Your task to perform on an android device: toggle priority inbox in the gmail app Image 0: 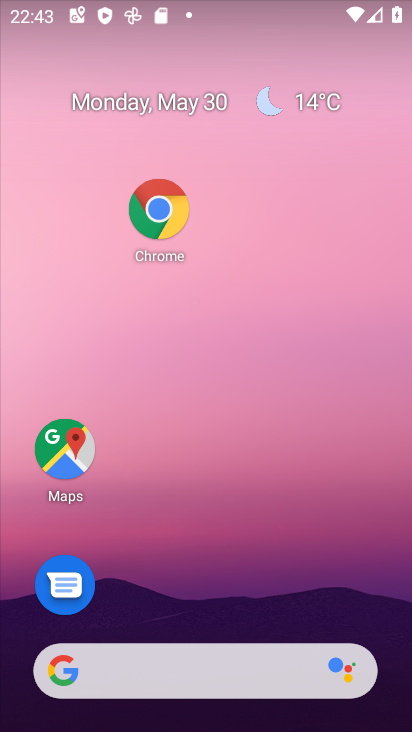
Step 0: drag from (190, 509) to (209, 173)
Your task to perform on an android device: toggle priority inbox in the gmail app Image 1: 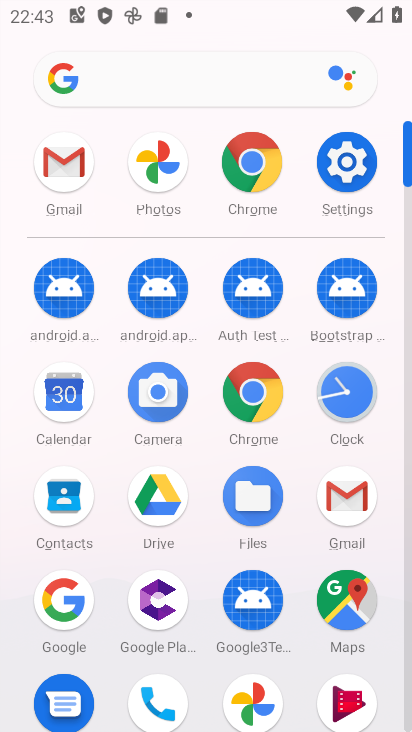
Step 1: click (344, 498)
Your task to perform on an android device: toggle priority inbox in the gmail app Image 2: 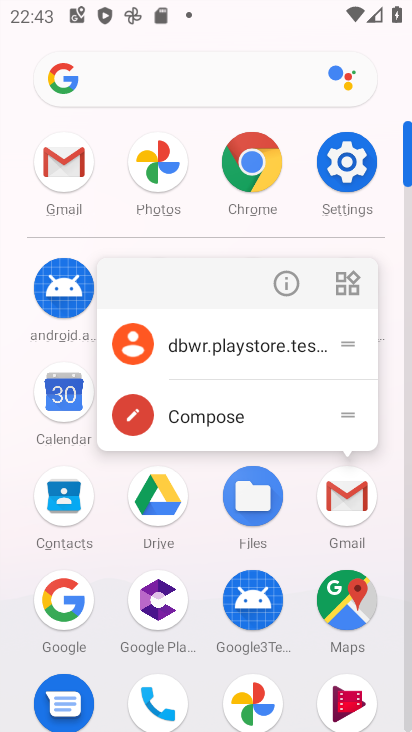
Step 2: click (287, 289)
Your task to perform on an android device: toggle priority inbox in the gmail app Image 3: 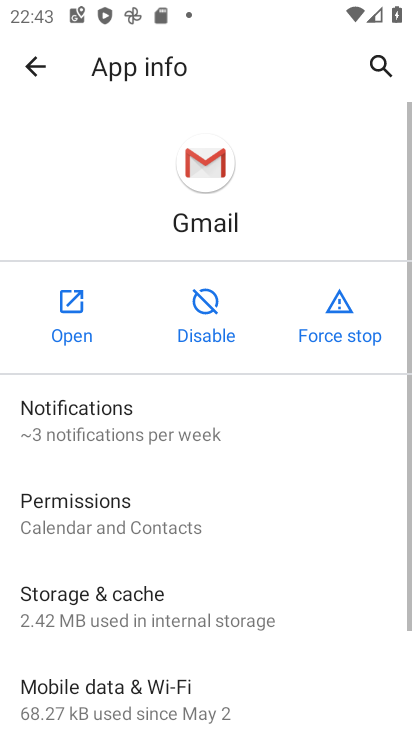
Step 3: click (67, 311)
Your task to perform on an android device: toggle priority inbox in the gmail app Image 4: 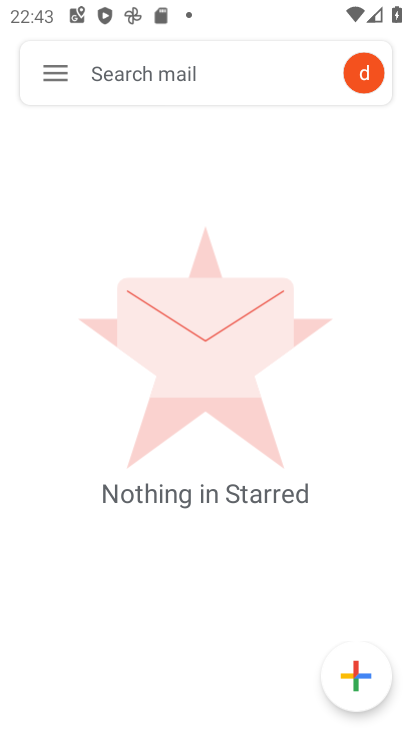
Step 4: click (62, 85)
Your task to perform on an android device: toggle priority inbox in the gmail app Image 5: 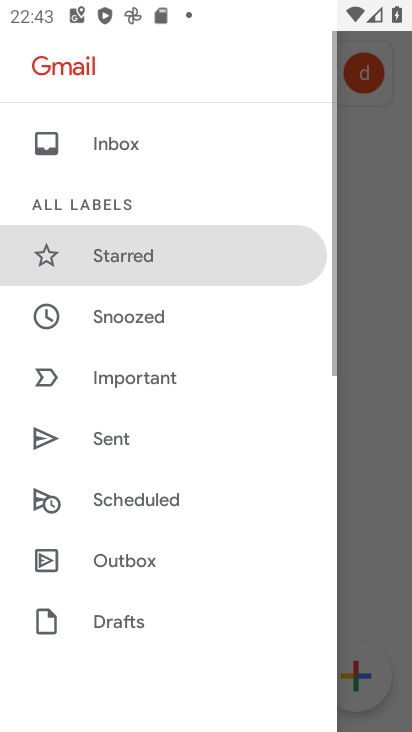
Step 5: drag from (161, 594) to (81, 19)
Your task to perform on an android device: toggle priority inbox in the gmail app Image 6: 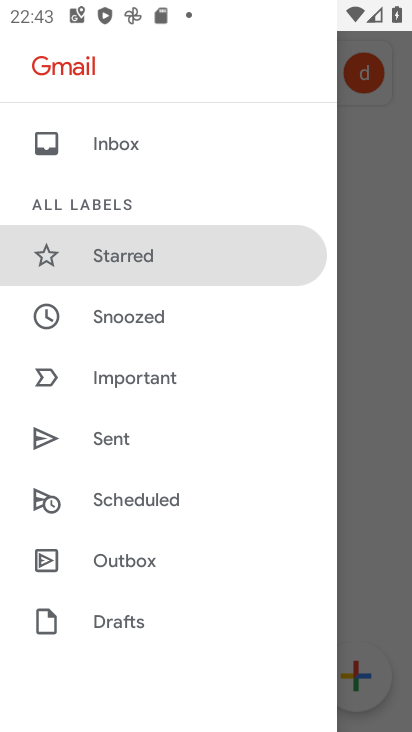
Step 6: drag from (125, 560) to (138, 31)
Your task to perform on an android device: toggle priority inbox in the gmail app Image 7: 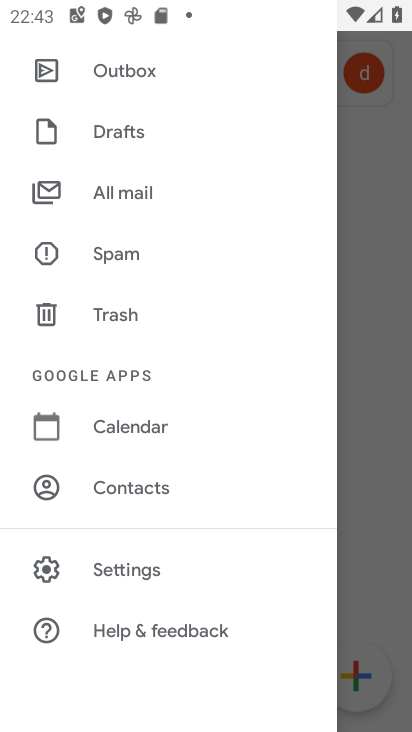
Step 7: click (133, 563)
Your task to perform on an android device: toggle priority inbox in the gmail app Image 8: 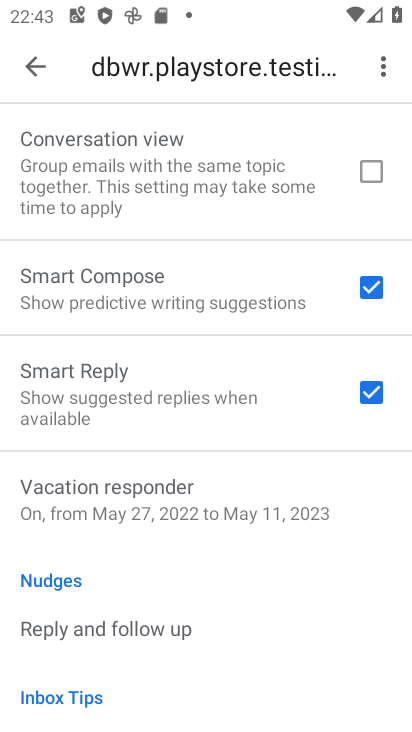
Step 8: drag from (201, 233) to (219, 729)
Your task to perform on an android device: toggle priority inbox in the gmail app Image 9: 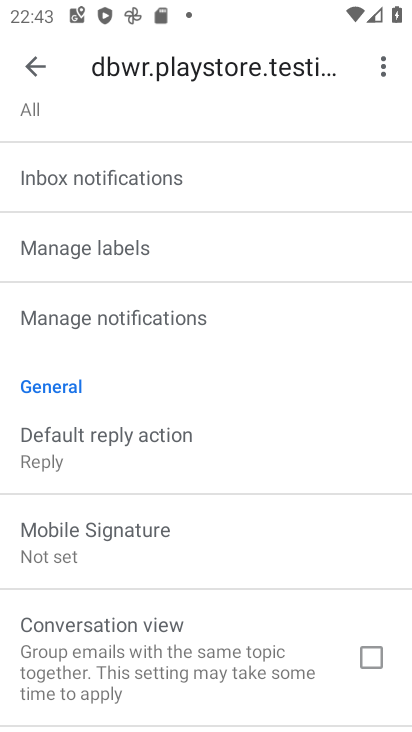
Step 9: drag from (123, 260) to (210, 725)
Your task to perform on an android device: toggle priority inbox in the gmail app Image 10: 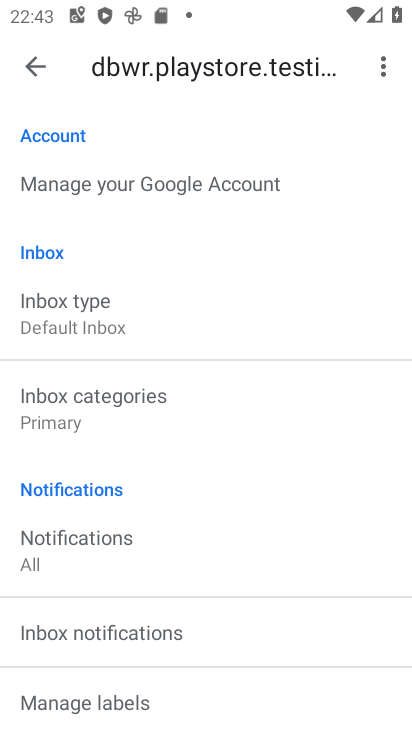
Step 10: click (91, 317)
Your task to perform on an android device: toggle priority inbox in the gmail app Image 11: 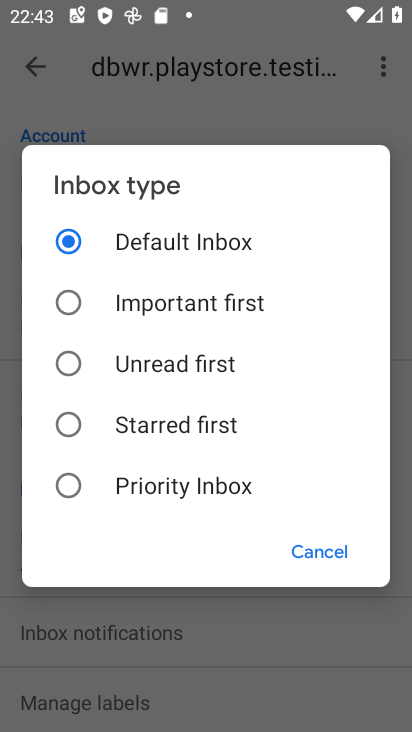
Step 11: click (91, 484)
Your task to perform on an android device: toggle priority inbox in the gmail app Image 12: 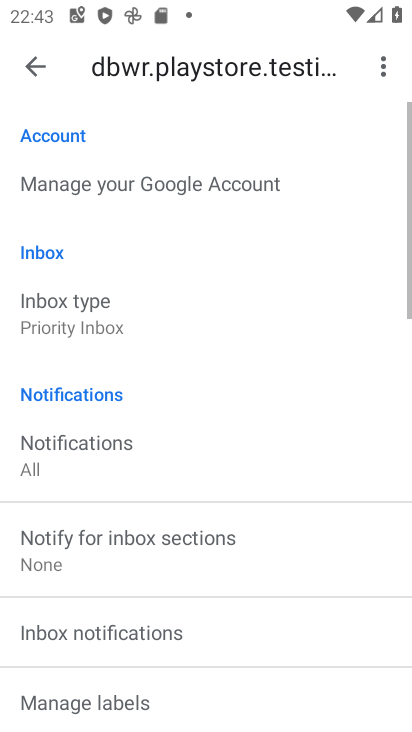
Step 12: task complete